Your task to perform on an android device: Clear all items from cart on costco.com. Search for "jbl flip 4" on costco.com, select the first entry, and add it to the cart. Image 0: 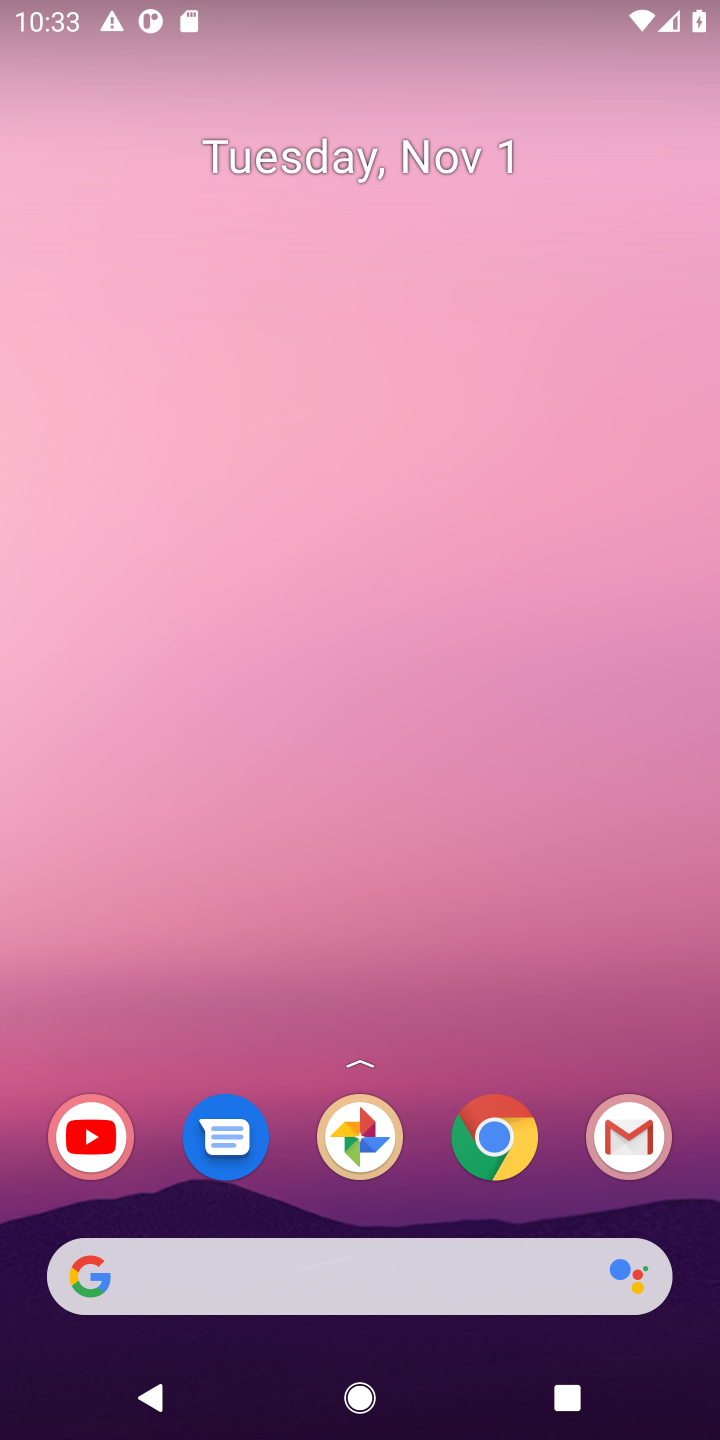
Step 0: press home button
Your task to perform on an android device: Clear all items from cart on costco.com. Search for "jbl flip 4" on costco.com, select the first entry, and add it to the cart. Image 1: 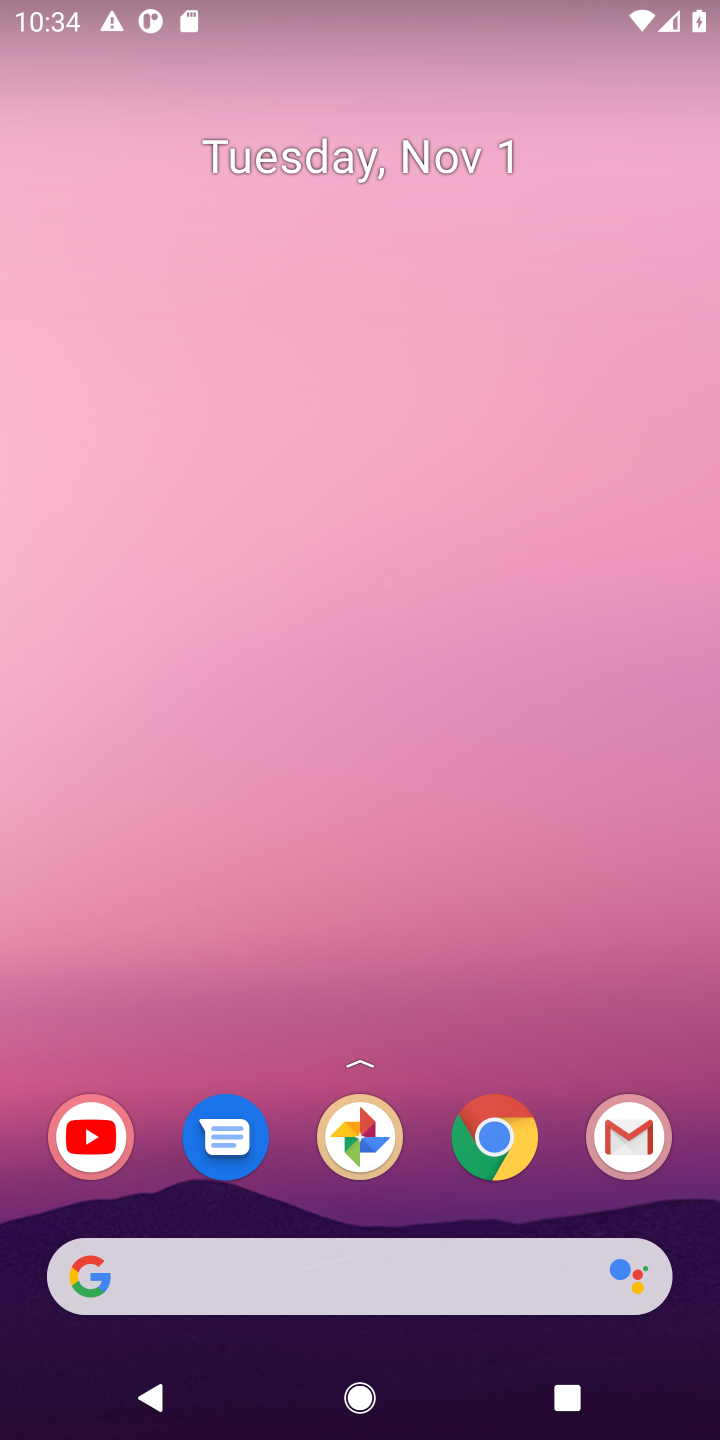
Step 1: click (315, 1287)
Your task to perform on an android device: Clear all items from cart on costco.com. Search for "jbl flip 4" on costco.com, select the first entry, and add it to the cart. Image 2: 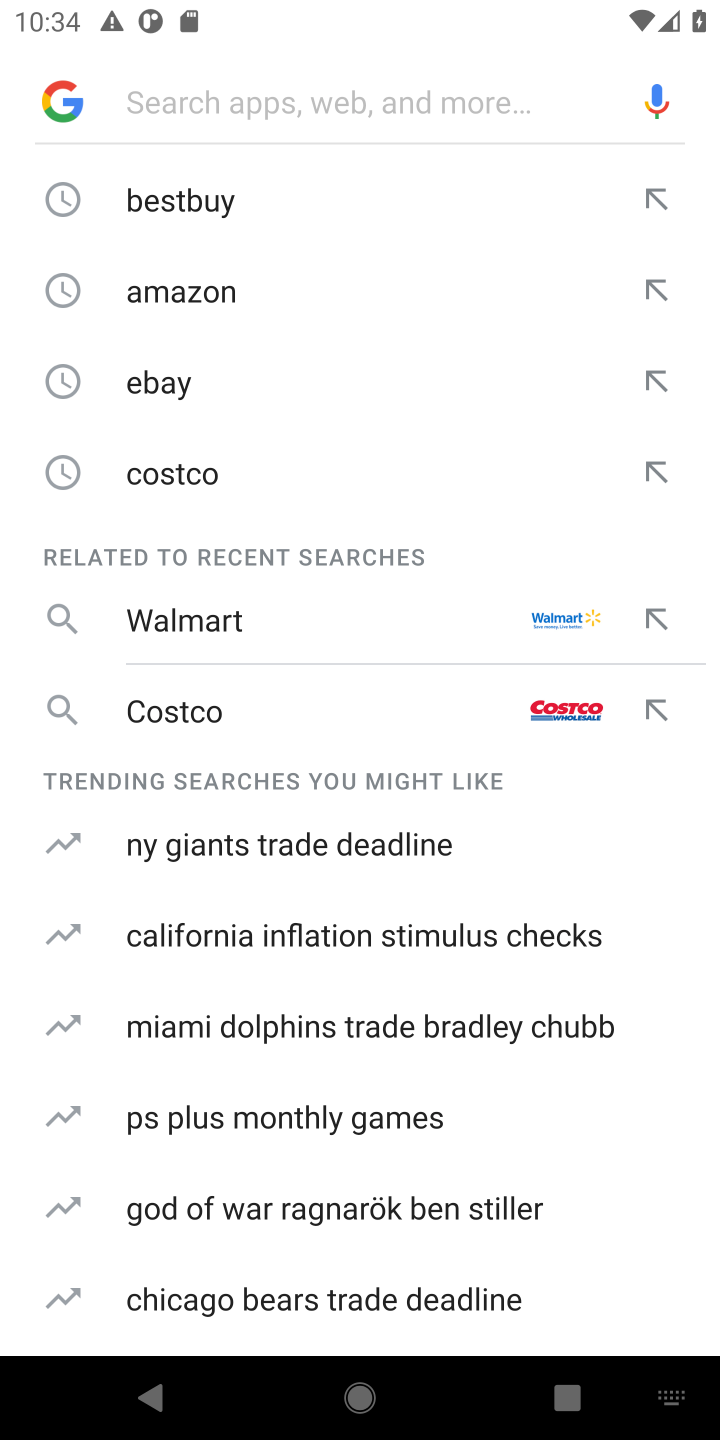
Step 2: click (394, 715)
Your task to perform on an android device: Clear all items from cart on costco.com. Search for "jbl flip 4" on costco.com, select the first entry, and add it to the cart. Image 3: 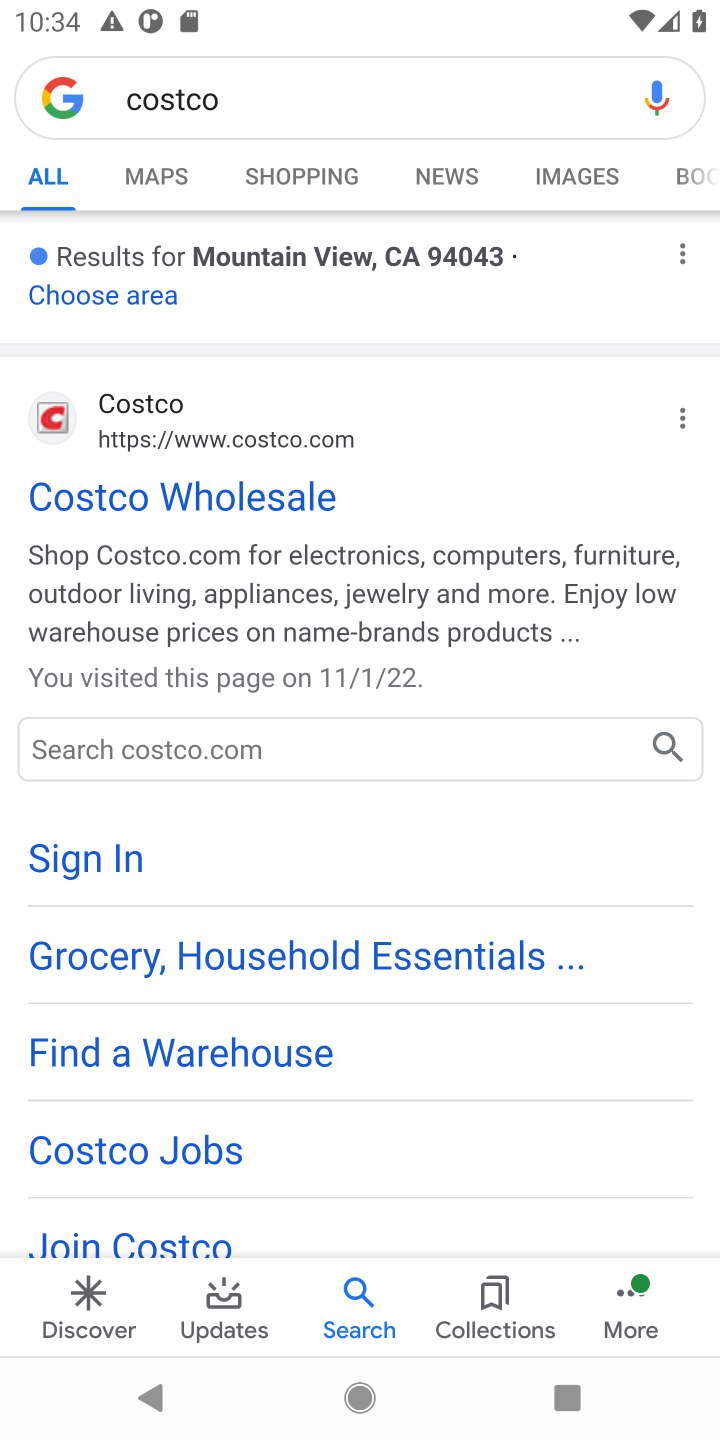
Step 3: click (210, 500)
Your task to perform on an android device: Clear all items from cart on costco.com. Search for "jbl flip 4" on costco.com, select the first entry, and add it to the cart. Image 4: 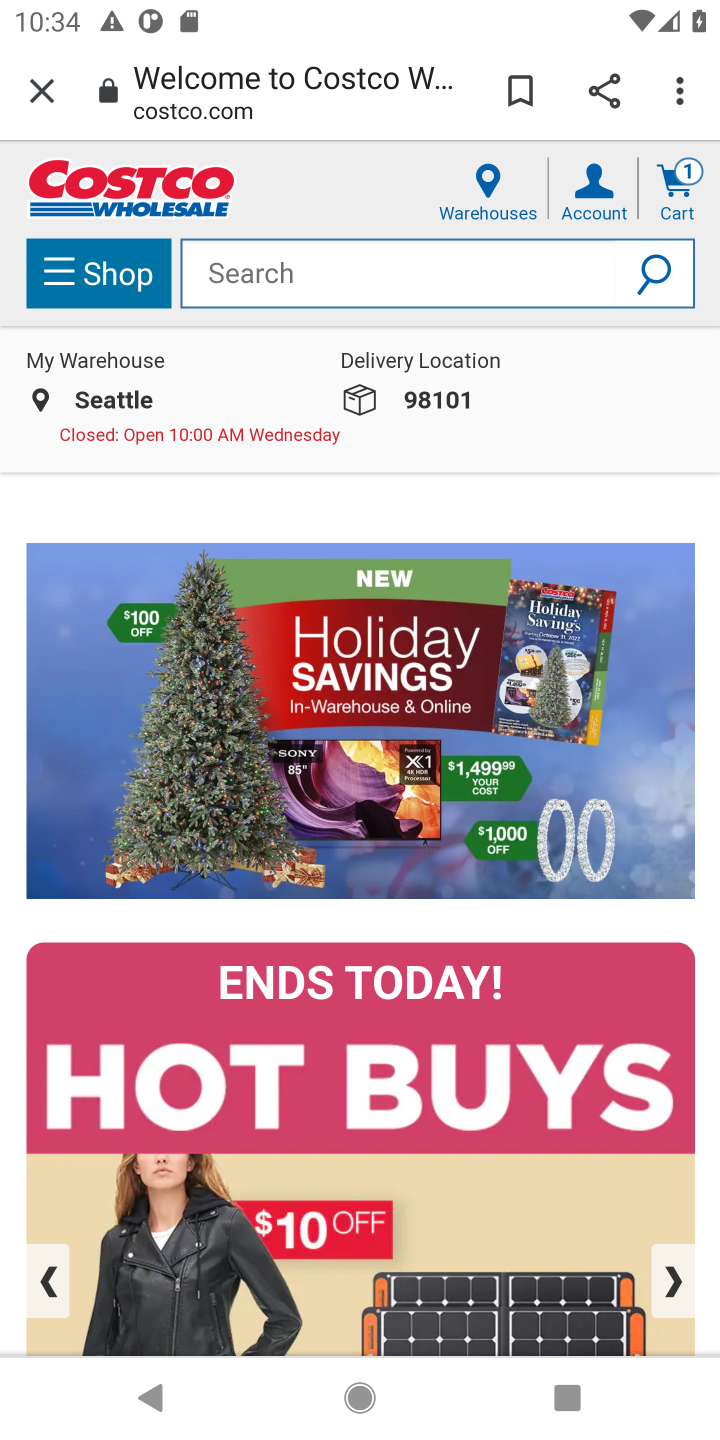
Step 4: click (520, 279)
Your task to perform on an android device: Clear all items from cart on costco.com. Search for "jbl flip 4" on costco.com, select the first entry, and add it to the cart. Image 5: 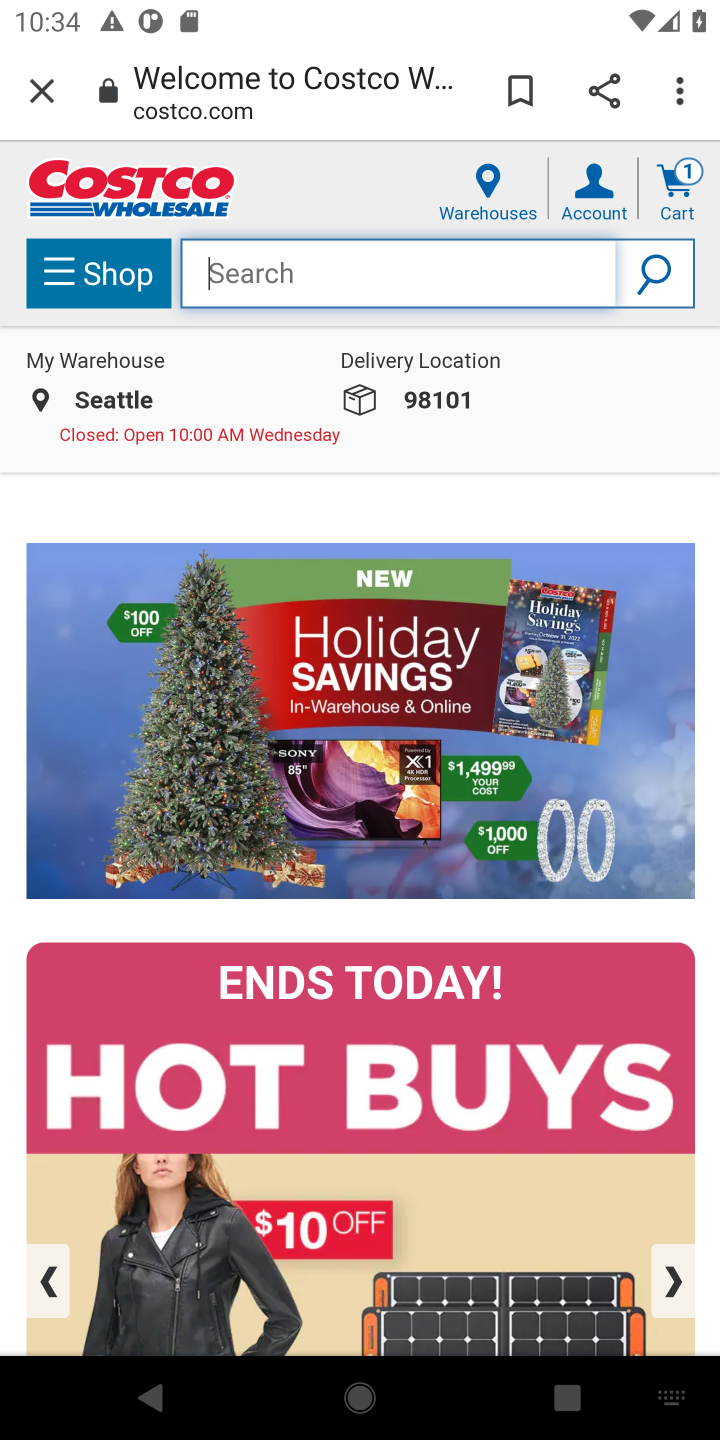
Step 5: type ""jbl flip 4"
Your task to perform on an android device: Clear all items from cart on costco.com. Search for "jbl flip 4" on costco.com, select the first entry, and add it to the cart. Image 6: 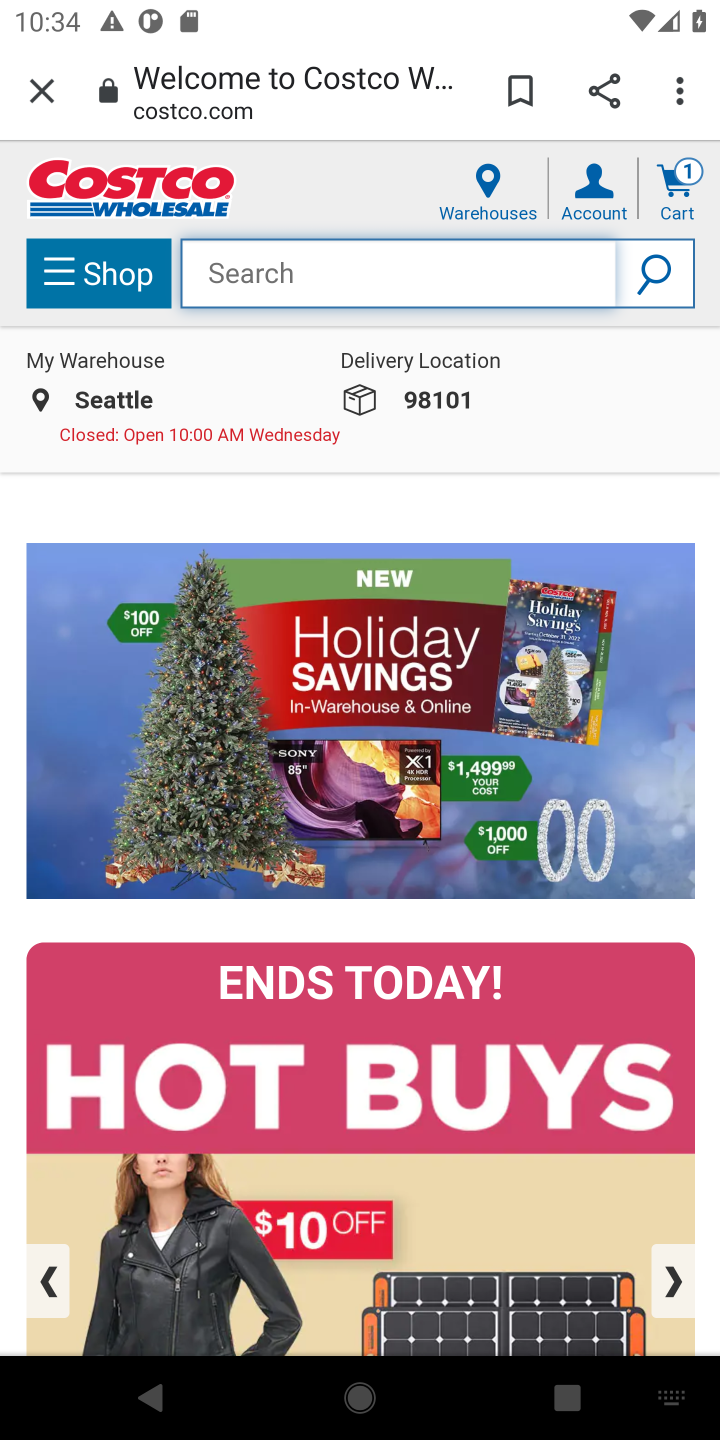
Step 6: click (662, 188)
Your task to perform on an android device: Clear all items from cart on costco.com. Search for "jbl flip 4" on costco.com, select the first entry, and add it to the cart. Image 7: 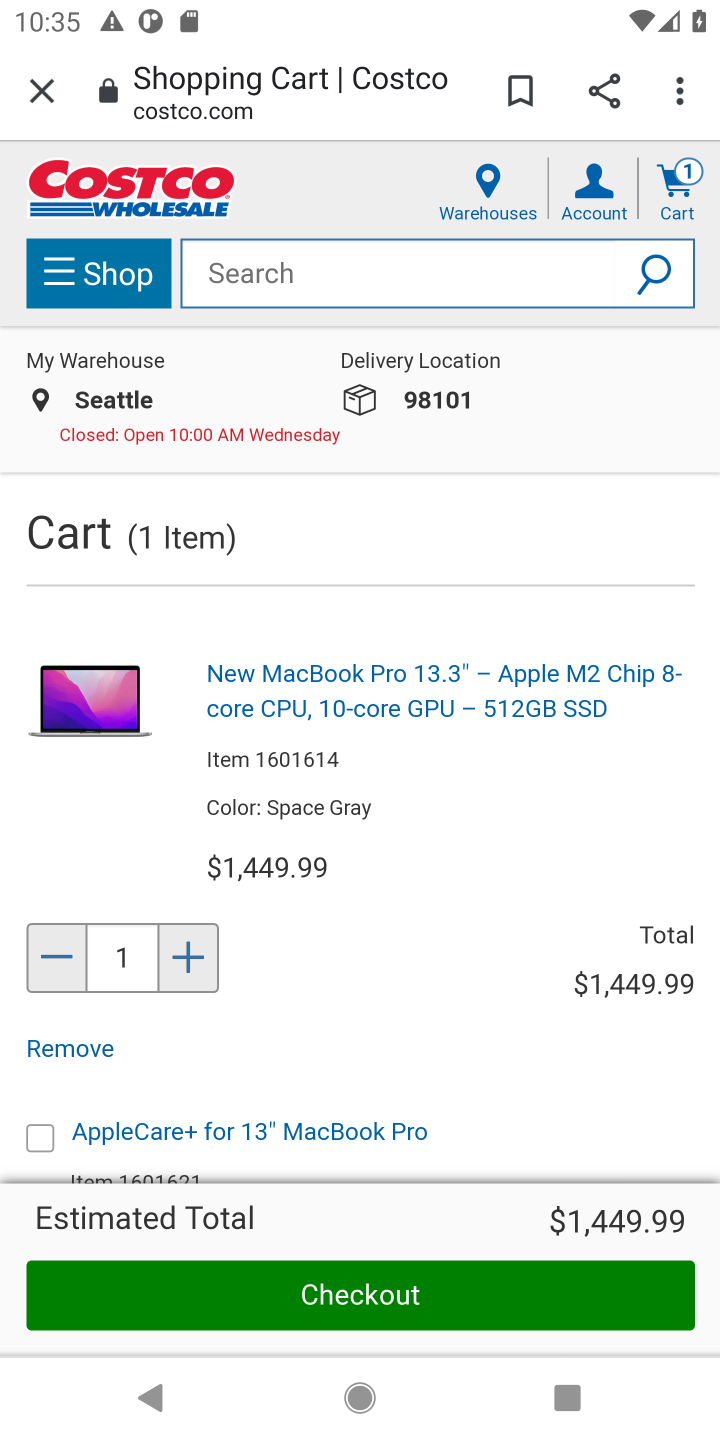
Step 7: click (68, 1039)
Your task to perform on an android device: Clear all items from cart on costco.com. Search for "jbl flip 4" on costco.com, select the first entry, and add it to the cart. Image 8: 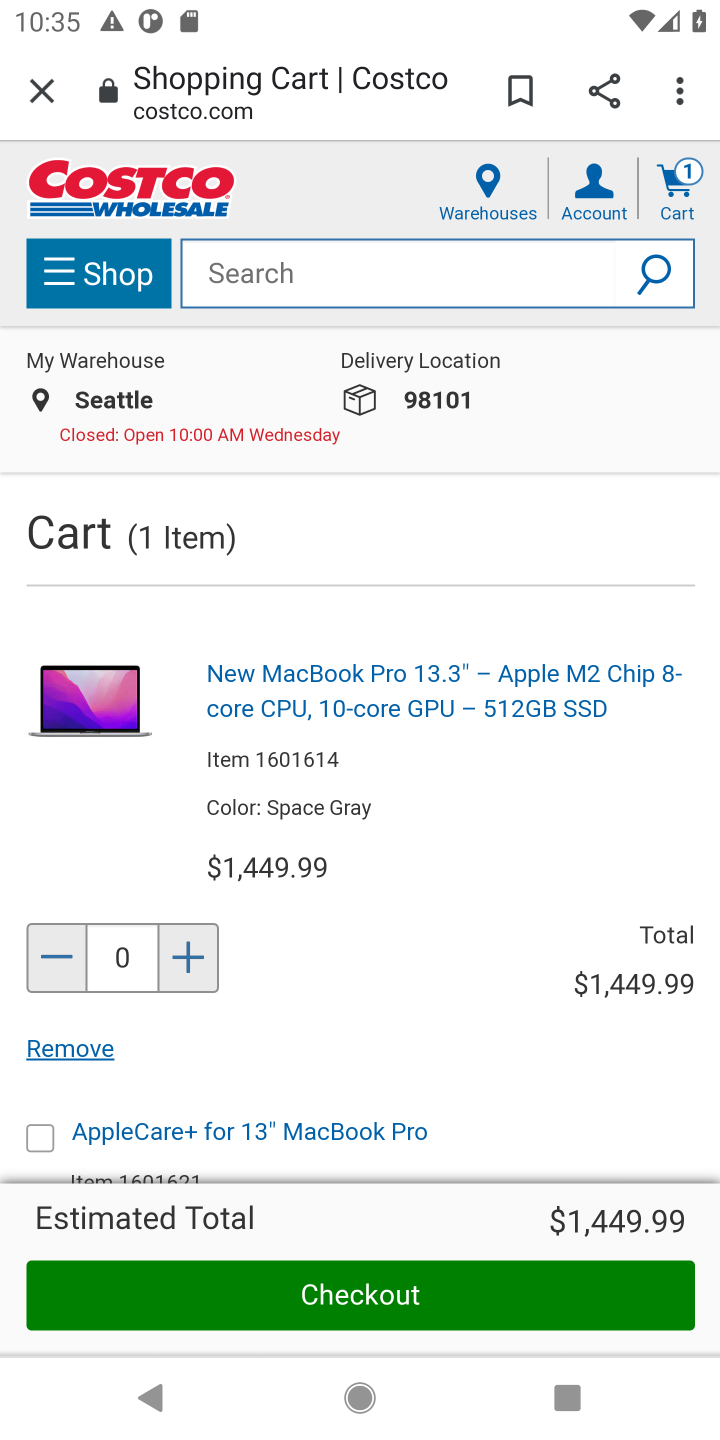
Step 8: click (36, 1051)
Your task to perform on an android device: Clear all items from cart on costco.com. Search for "jbl flip 4" on costco.com, select the first entry, and add it to the cart. Image 9: 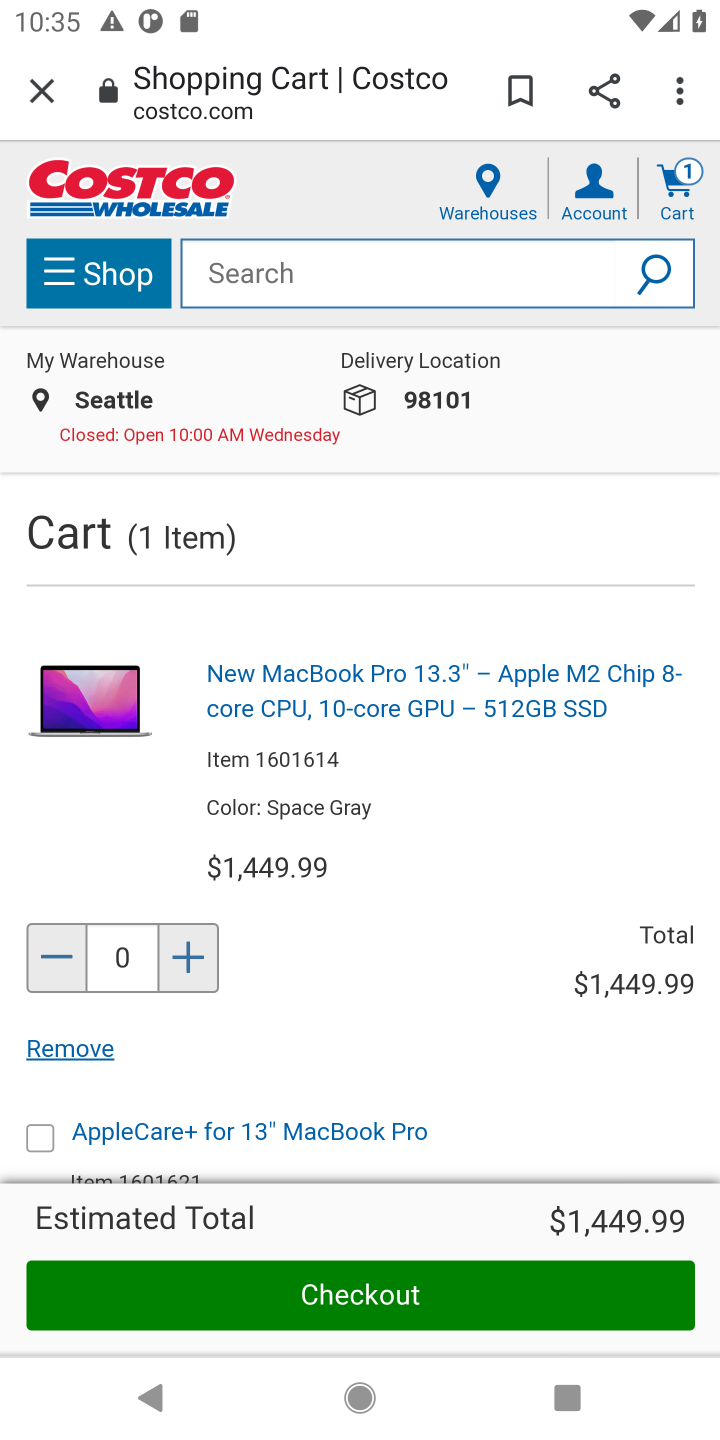
Step 9: click (48, 1054)
Your task to perform on an android device: Clear all items from cart on costco.com. Search for "jbl flip 4" on costco.com, select the first entry, and add it to the cart. Image 10: 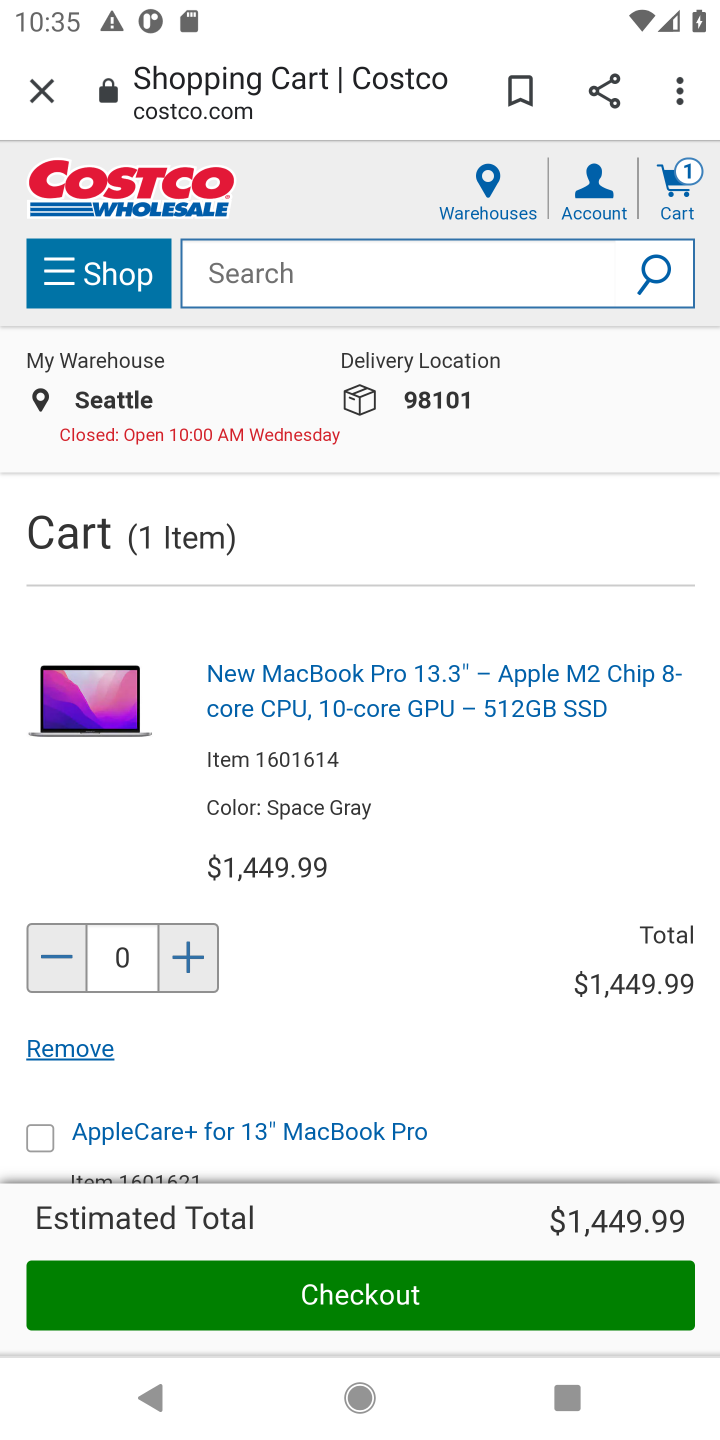
Step 10: click (48, 1054)
Your task to perform on an android device: Clear all items from cart on costco.com. Search for "jbl flip 4" on costco.com, select the first entry, and add it to the cart. Image 11: 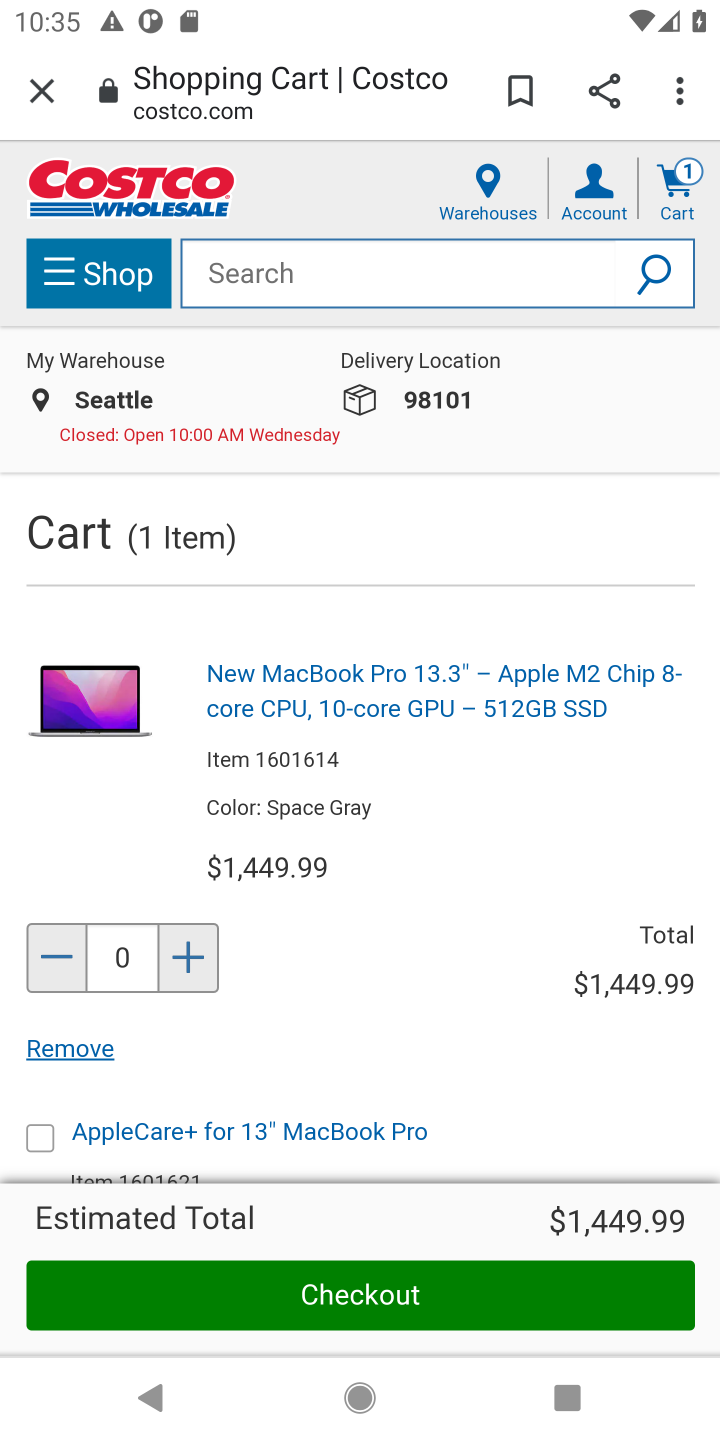
Step 11: click (76, 1054)
Your task to perform on an android device: Clear all items from cart on costco.com. Search for "jbl flip 4" on costco.com, select the first entry, and add it to the cart. Image 12: 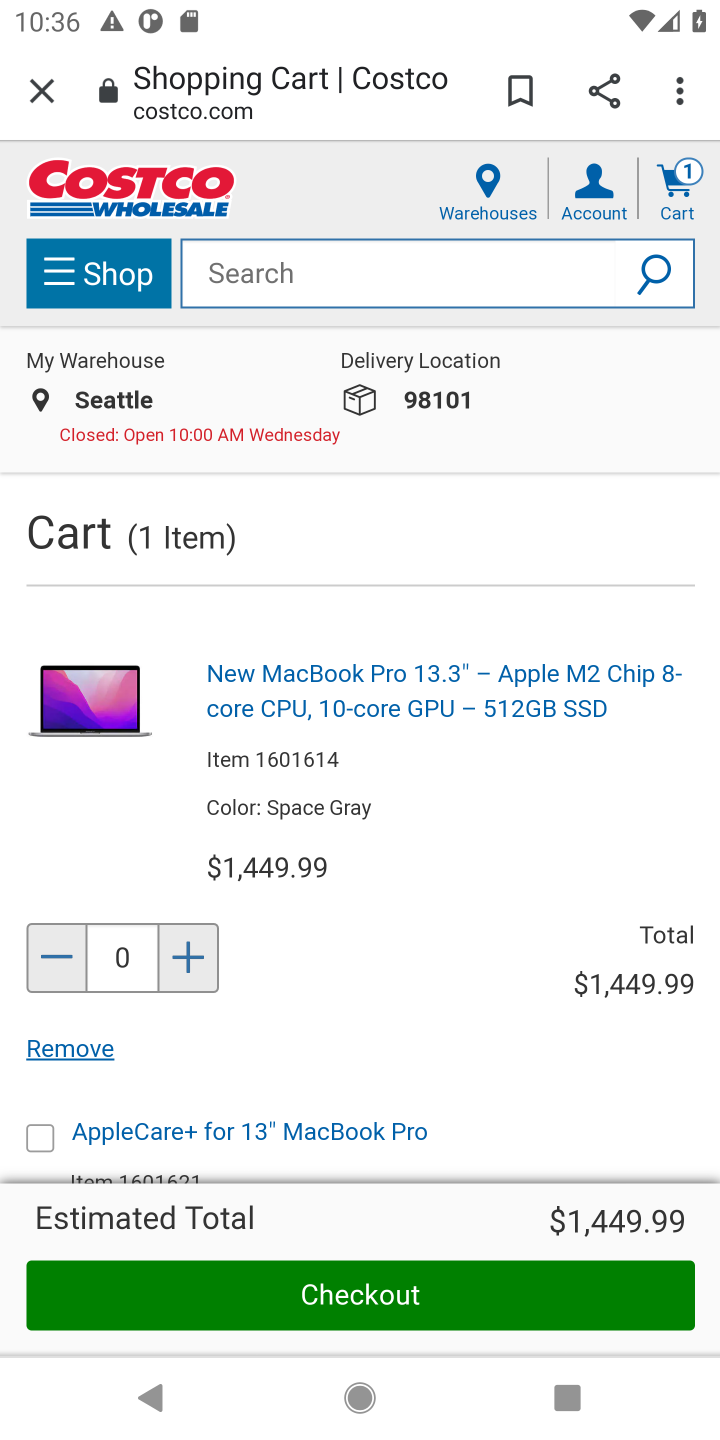
Step 12: click (269, 269)
Your task to perform on an android device: Clear all items from cart on costco.com. Search for "jbl flip 4" on costco.com, select the first entry, and add it to the cart. Image 13: 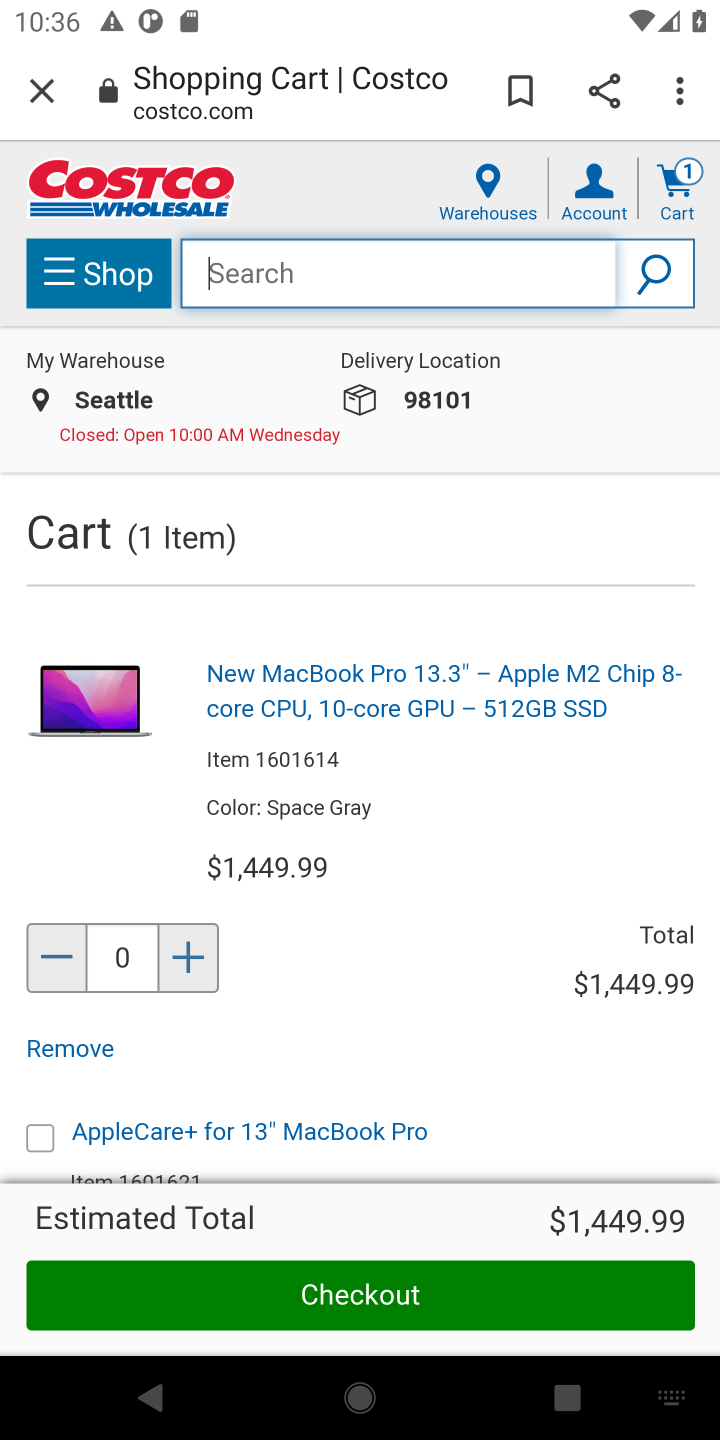
Step 13: type ""jbl flip 4"
Your task to perform on an android device: Clear all items from cart on costco.com. Search for "jbl flip 4" on costco.com, select the first entry, and add it to the cart. Image 14: 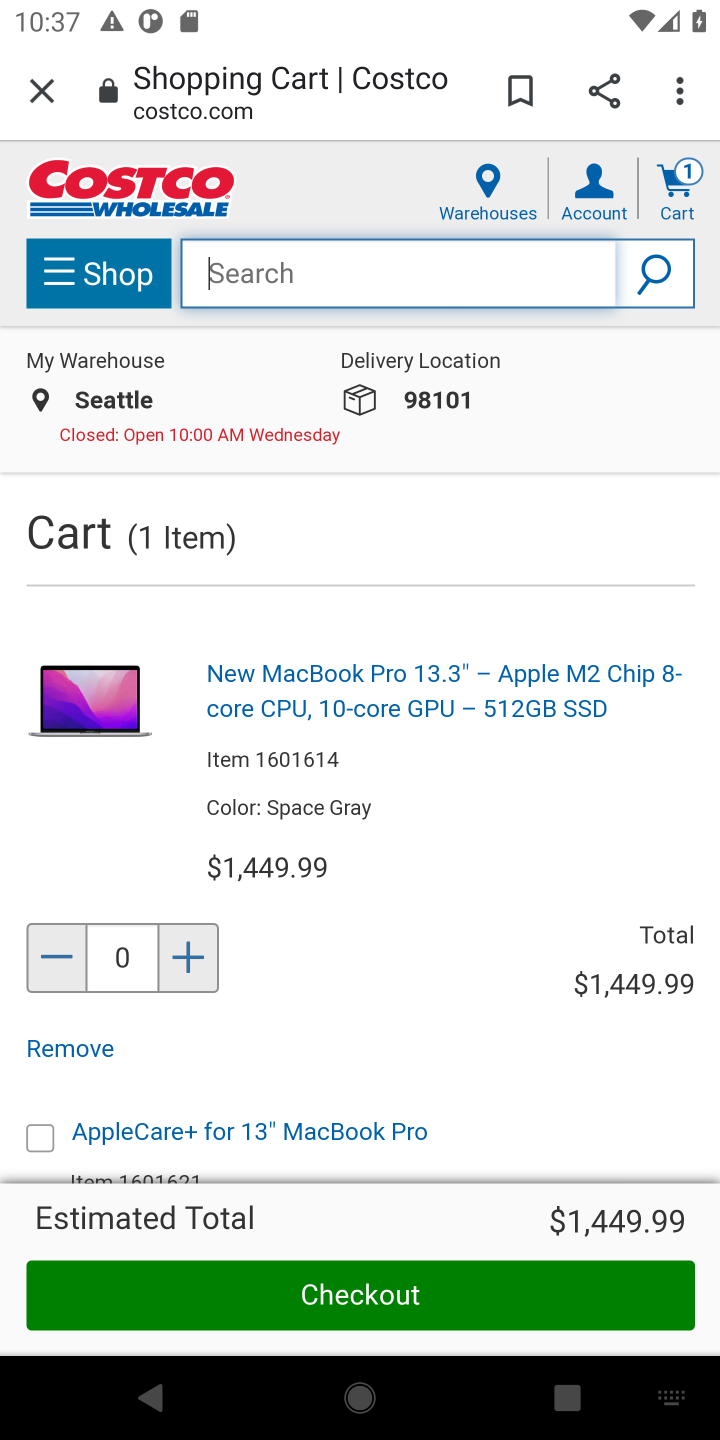
Step 14: click (63, 1038)
Your task to perform on an android device: Clear all items from cart on costco.com. Search for "jbl flip 4" on costco.com, select the first entry, and add it to the cart. Image 15: 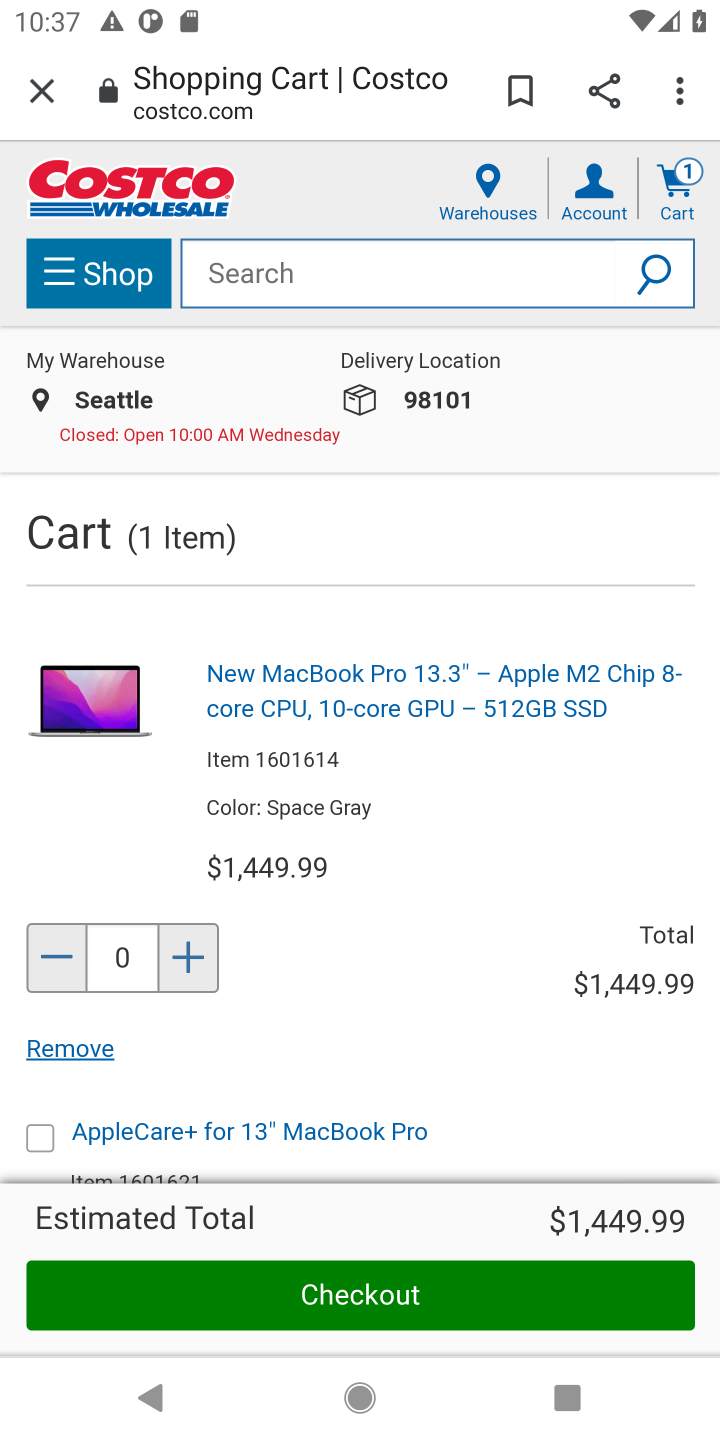
Step 15: click (63, 1050)
Your task to perform on an android device: Clear all items from cart on costco.com. Search for "jbl flip 4" on costco.com, select the first entry, and add it to the cart. Image 16: 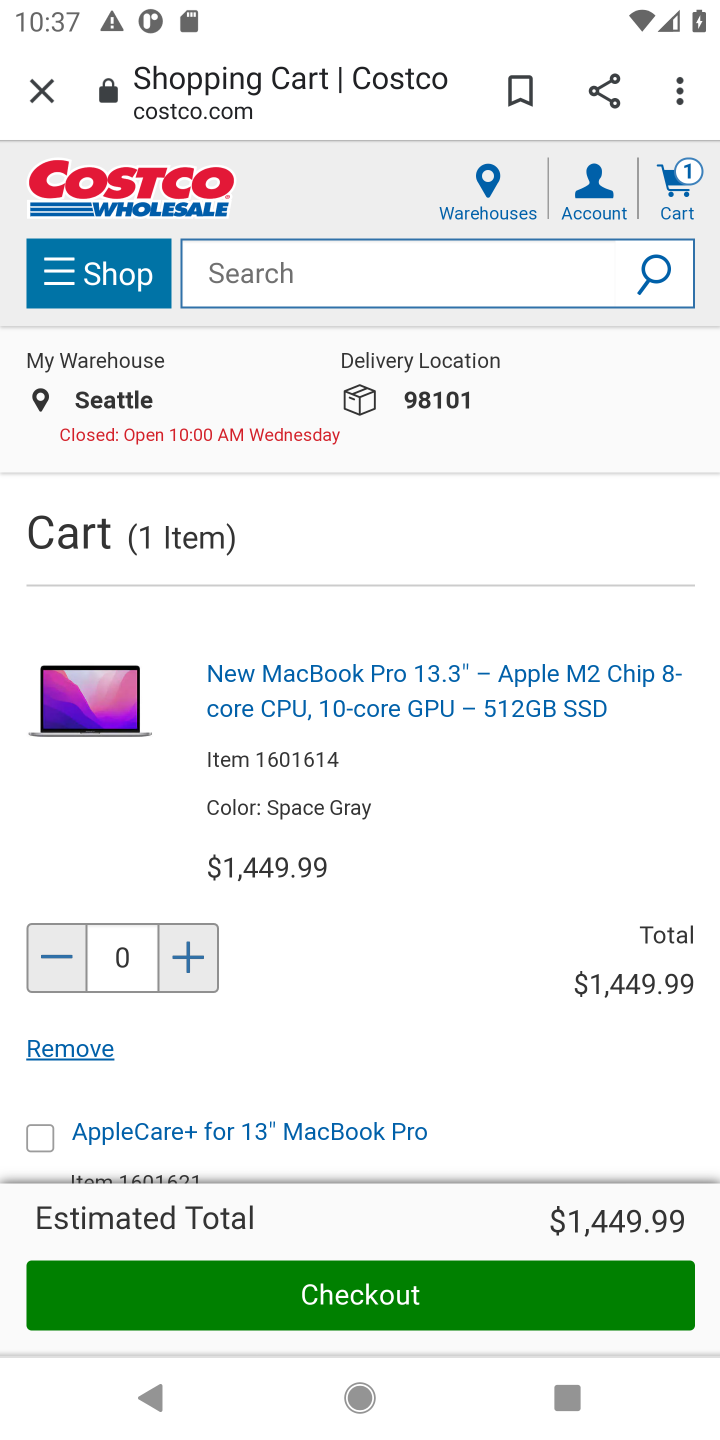
Step 16: click (63, 1050)
Your task to perform on an android device: Clear all items from cart on costco.com. Search for "jbl flip 4" on costco.com, select the first entry, and add it to the cart. Image 17: 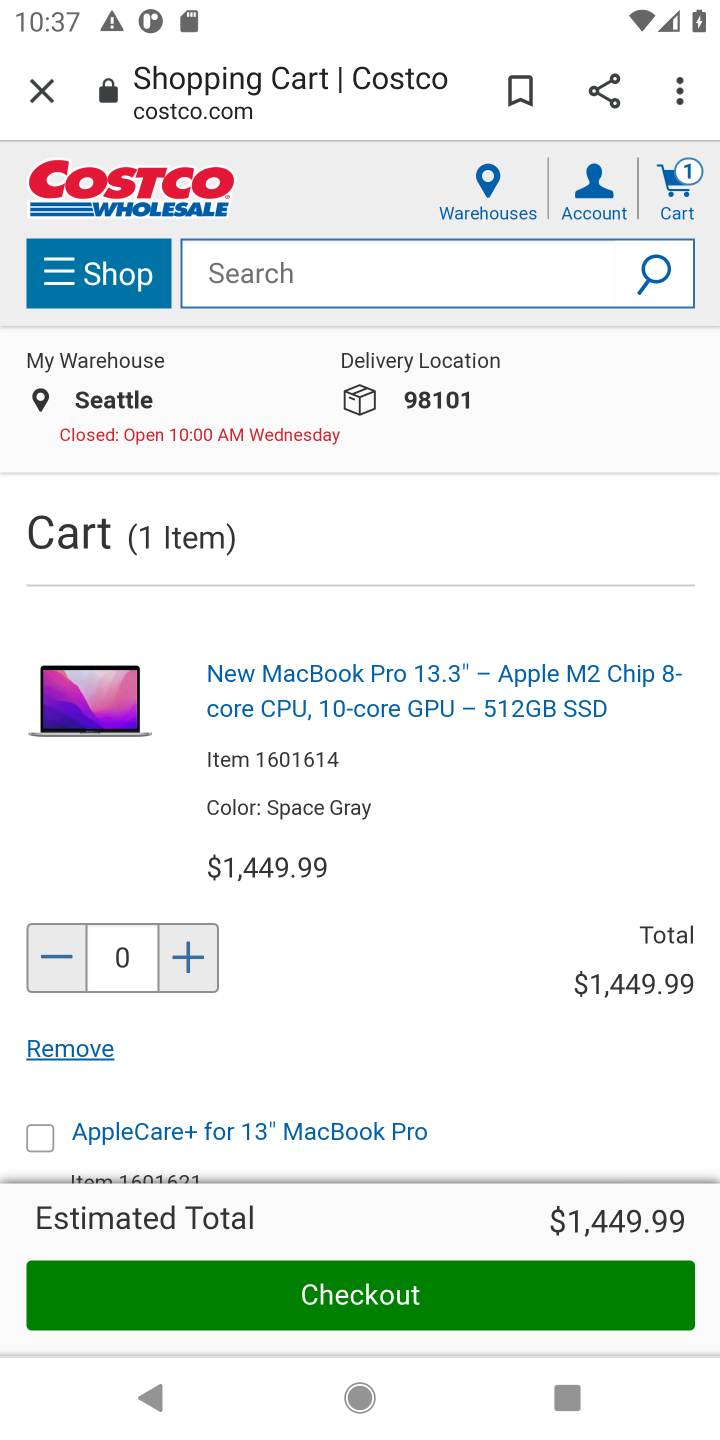
Step 17: click (63, 1039)
Your task to perform on an android device: Clear all items from cart on costco.com. Search for "jbl flip 4" on costco.com, select the first entry, and add it to the cart. Image 18: 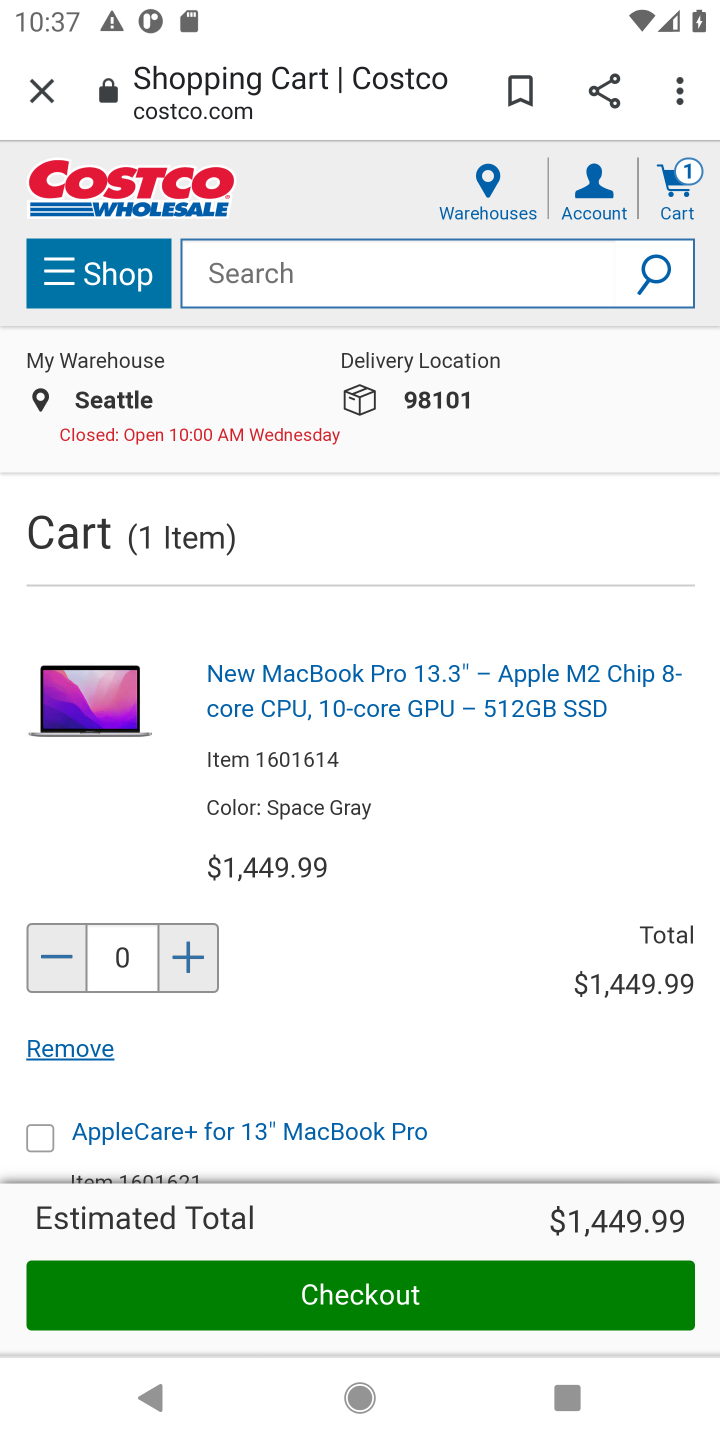
Step 18: click (63, 1039)
Your task to perform on an android device: Clear all items from cart on costco.com. Search for "jbl flip 4" on costco.com, select the first entry, and add it to the cart. Image 19: 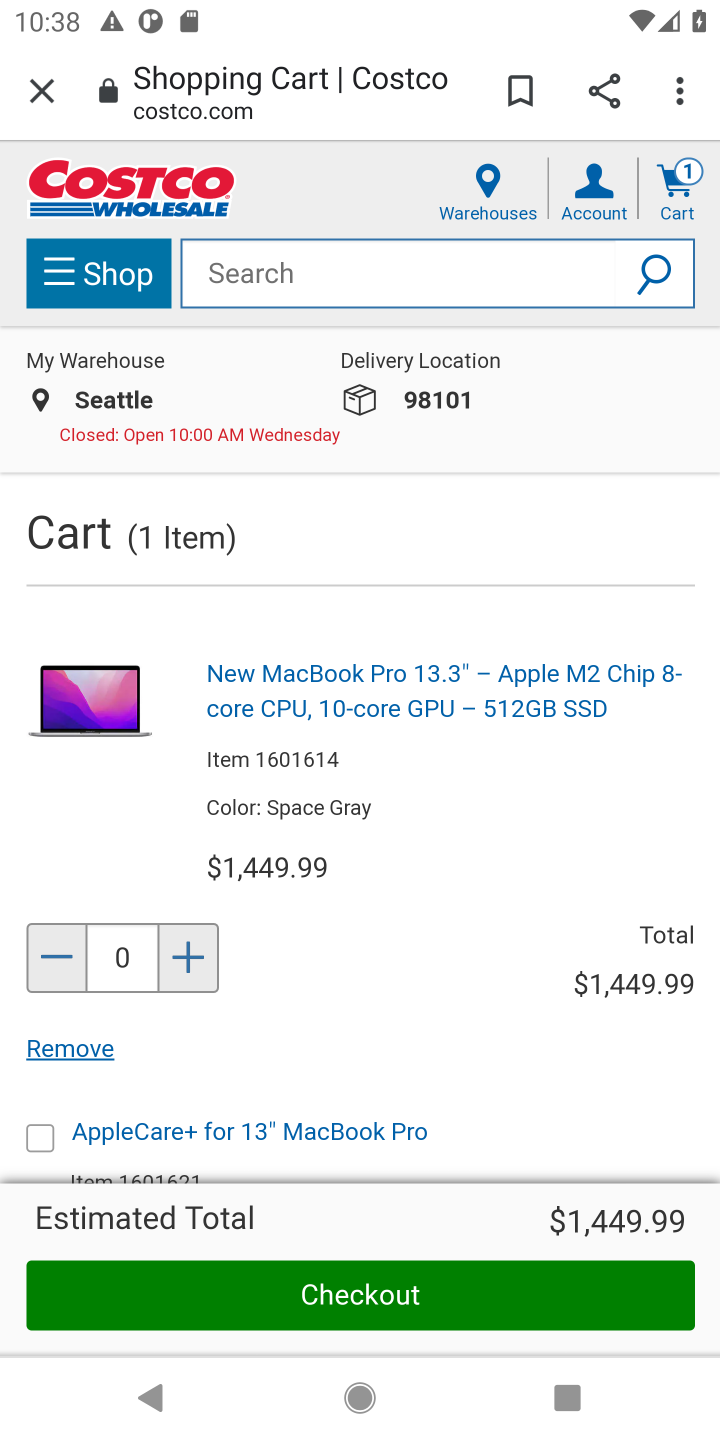
Step 19: click (63, 1039)
Your task to perform on an android device: Clear all items from cart on costco.com. Search for "jbl flip 4" on costco.com, select the first entry, and add it to the cart. Image 20: 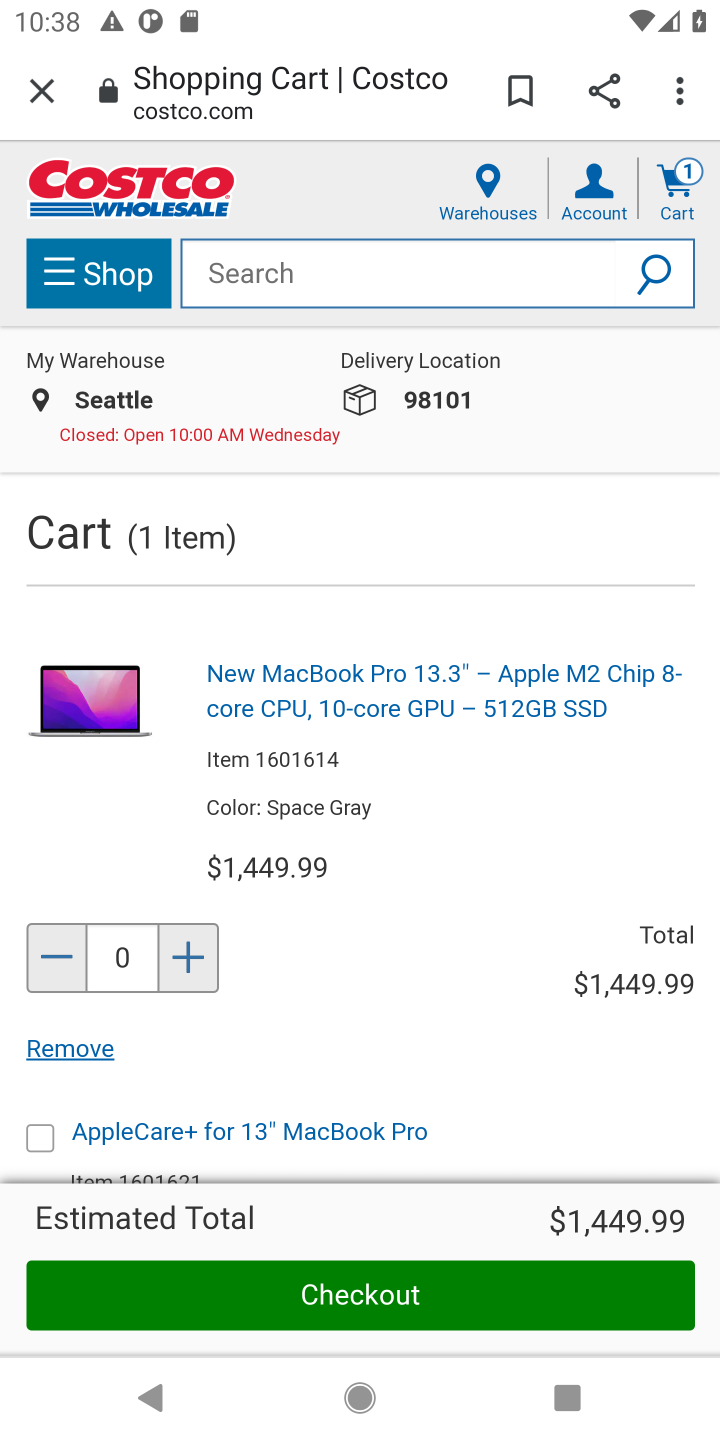
Step 20: click (72, 1045)
Your task to perform on an android device: Clear all items from cart on costco.com. Search for "jbl flip 4" on costco.com, select the first entry, and add it to the cart. Image 21: 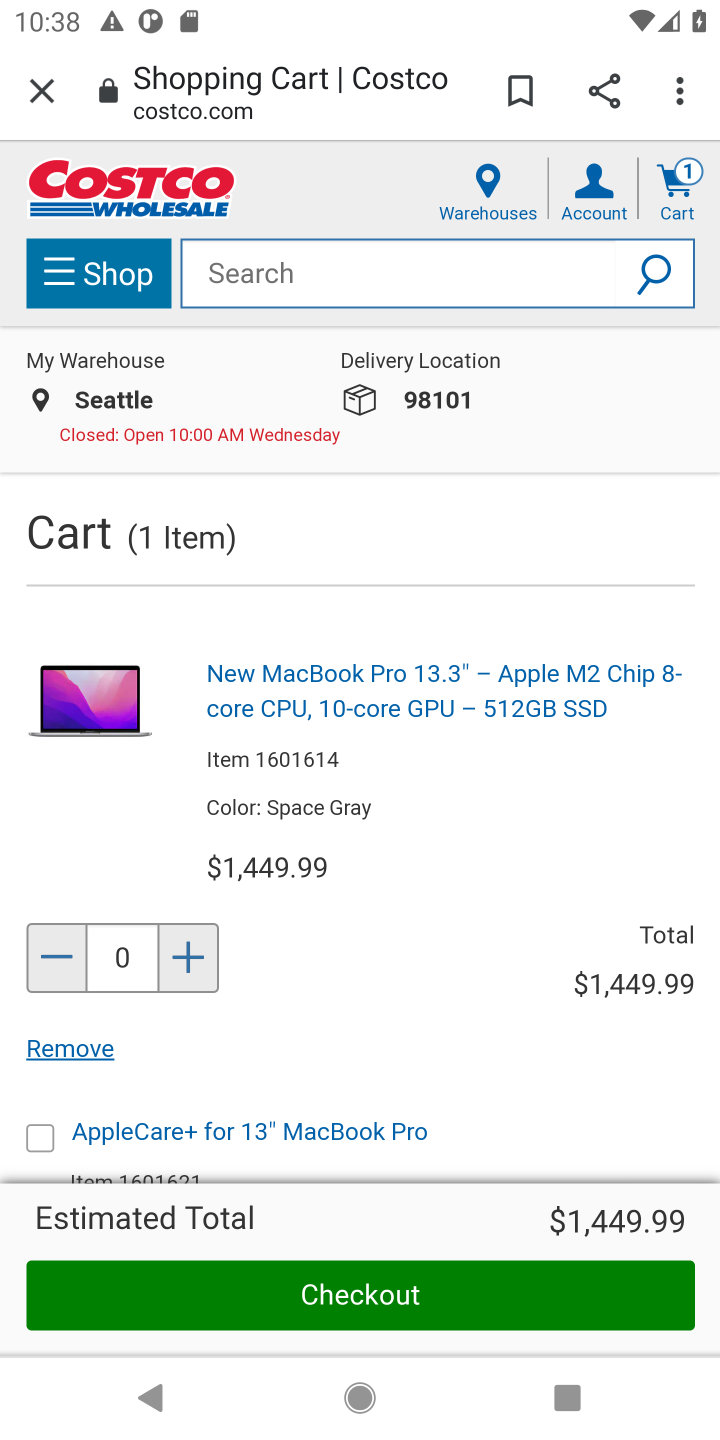
Step 21: click (97, 1032)
Your task to perform on an android device: Clear all items from cart on costco.com. Search for "jbl flip 4" on costco.com, select the first entry, and add it to the cart. Image 22: 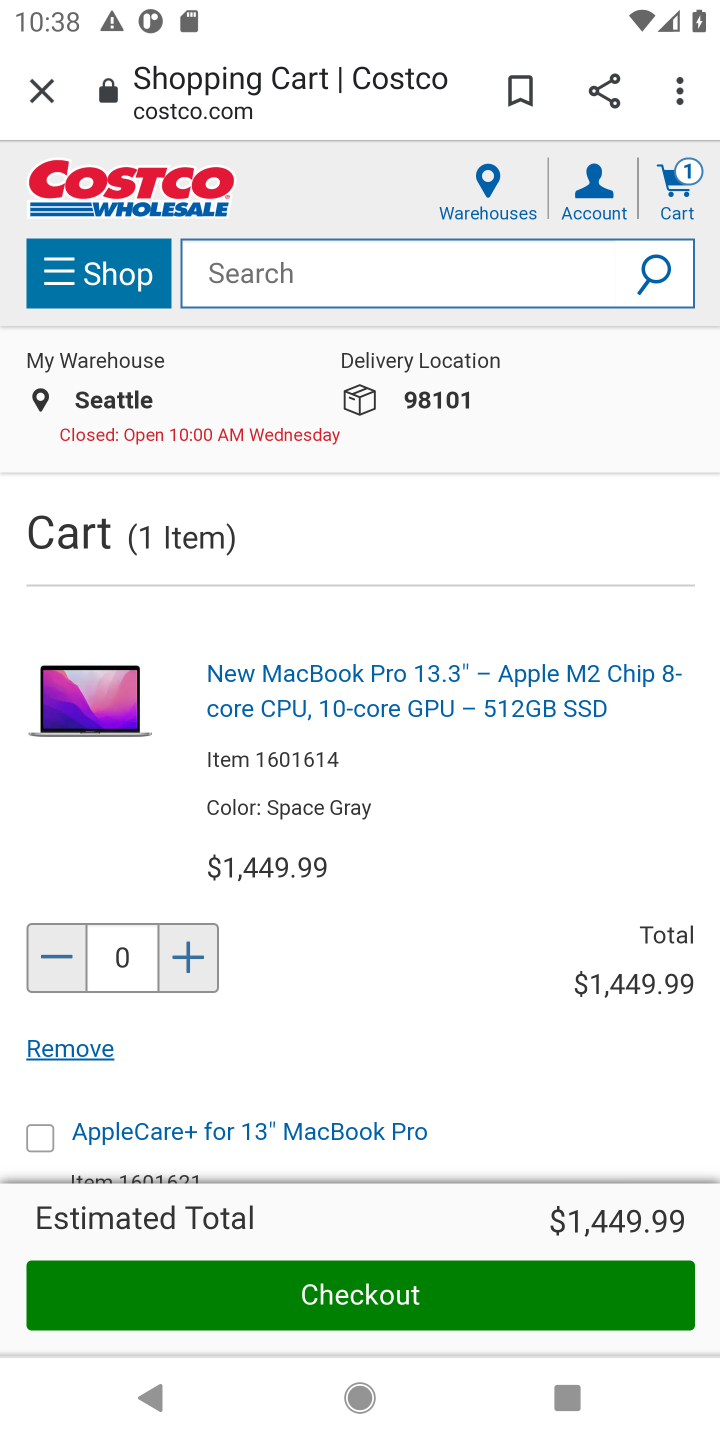
Step 22: drag from (365, 917) to (386, 570)
Your task to perform on an android device: Clear all items from cart on costco.com. Search for "jbl flip 4" on costco.com, select the first entry, and add it to the cart. Image 23: 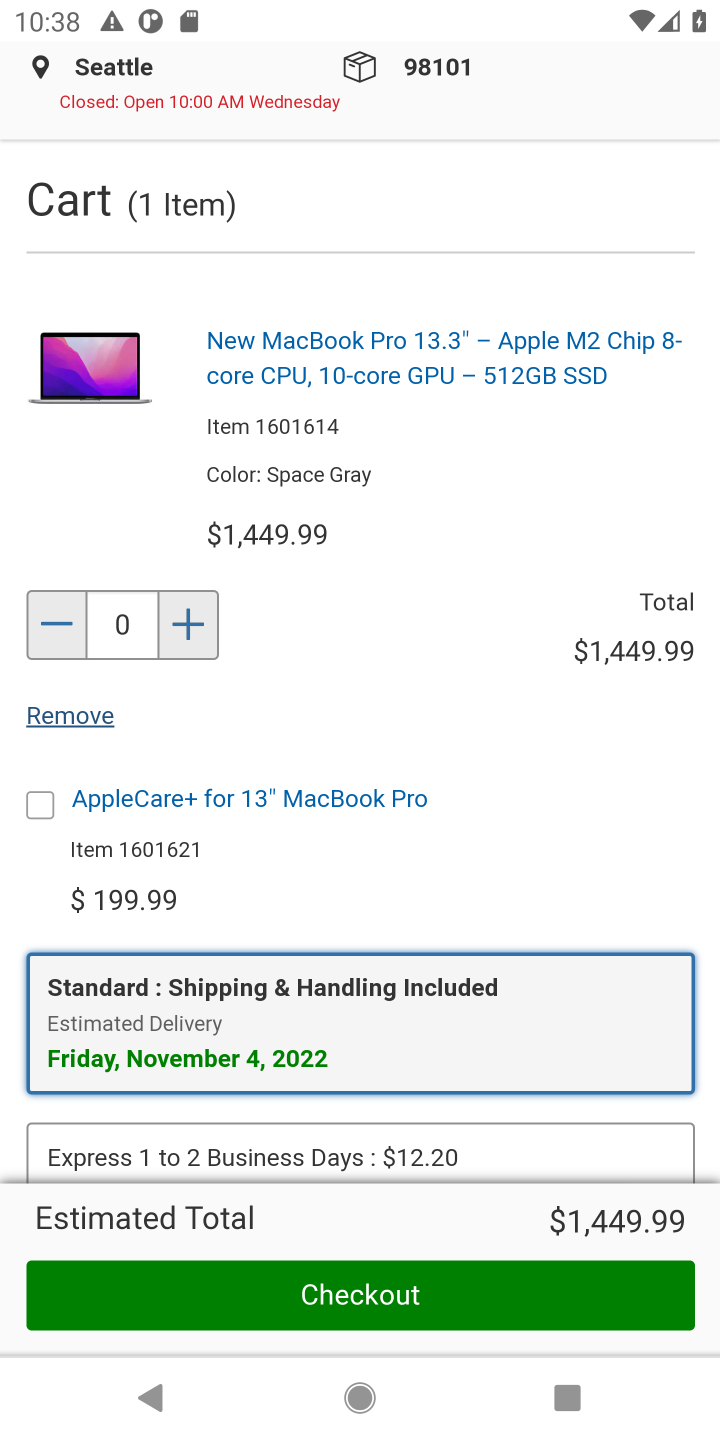
Step 23: click (60, 723)
Your task to perform on an android device: Clear all items from cart on costco.com. Search for "jbl flip 4" on costco.com, select the first entry, and add it to the cart. Image 24: 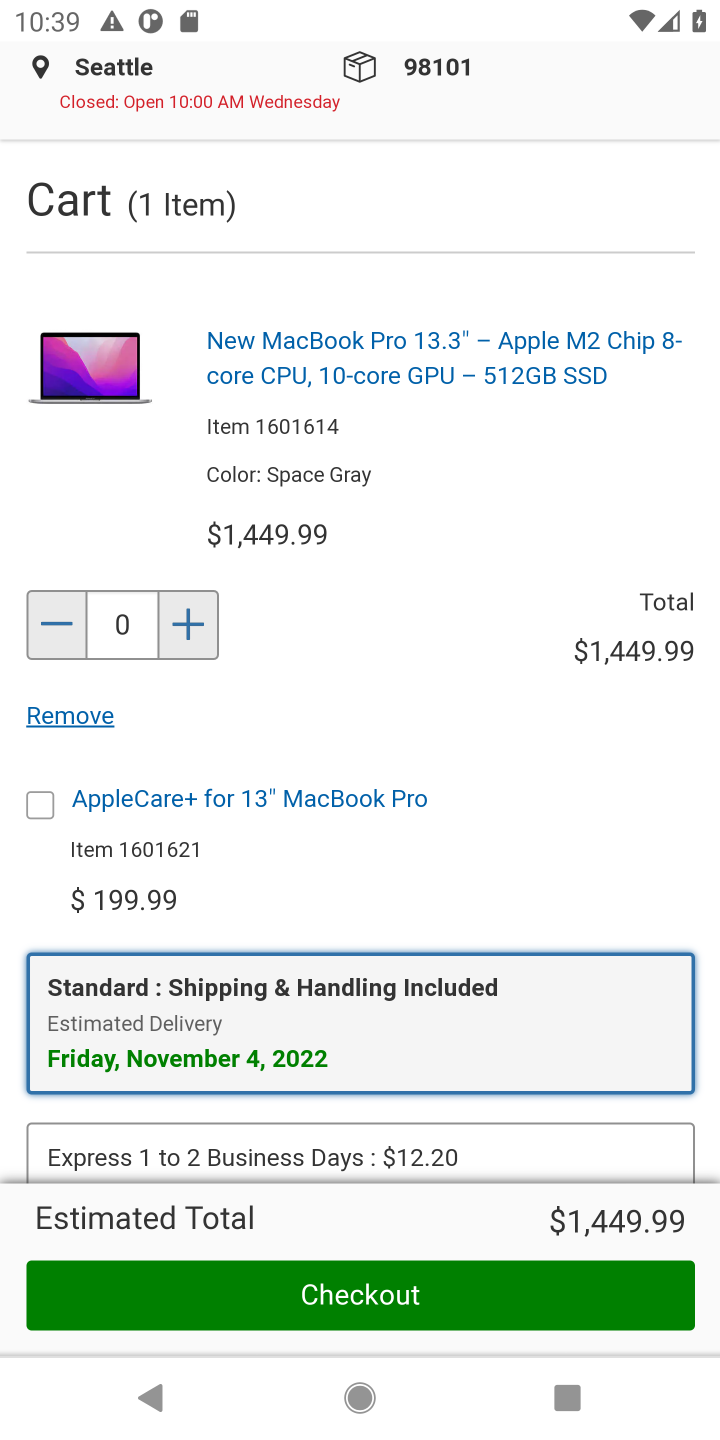
Step 24: click (63, 705)
Your task to perform on an android device: Clear all items from cart on costco.com. Search for "jbl flip 4" on costco.com, select the first entry, and add it to the cart. Image 25: 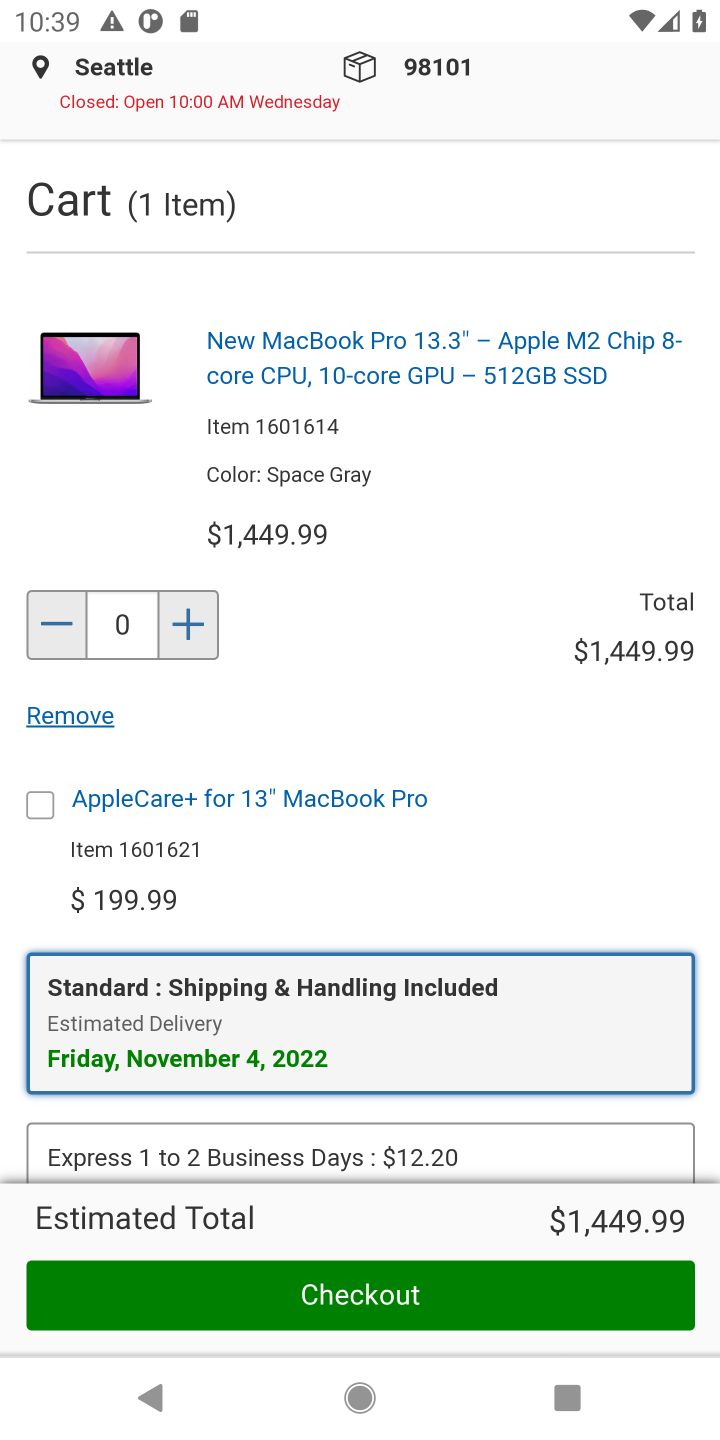
Step 25: click (86, 726)
Your task to perform on an android device: Clear all items from cart on costco.com. Search for "jbl flip 4" on costco.com, select the first entry, and add it to the cart. Image 26: 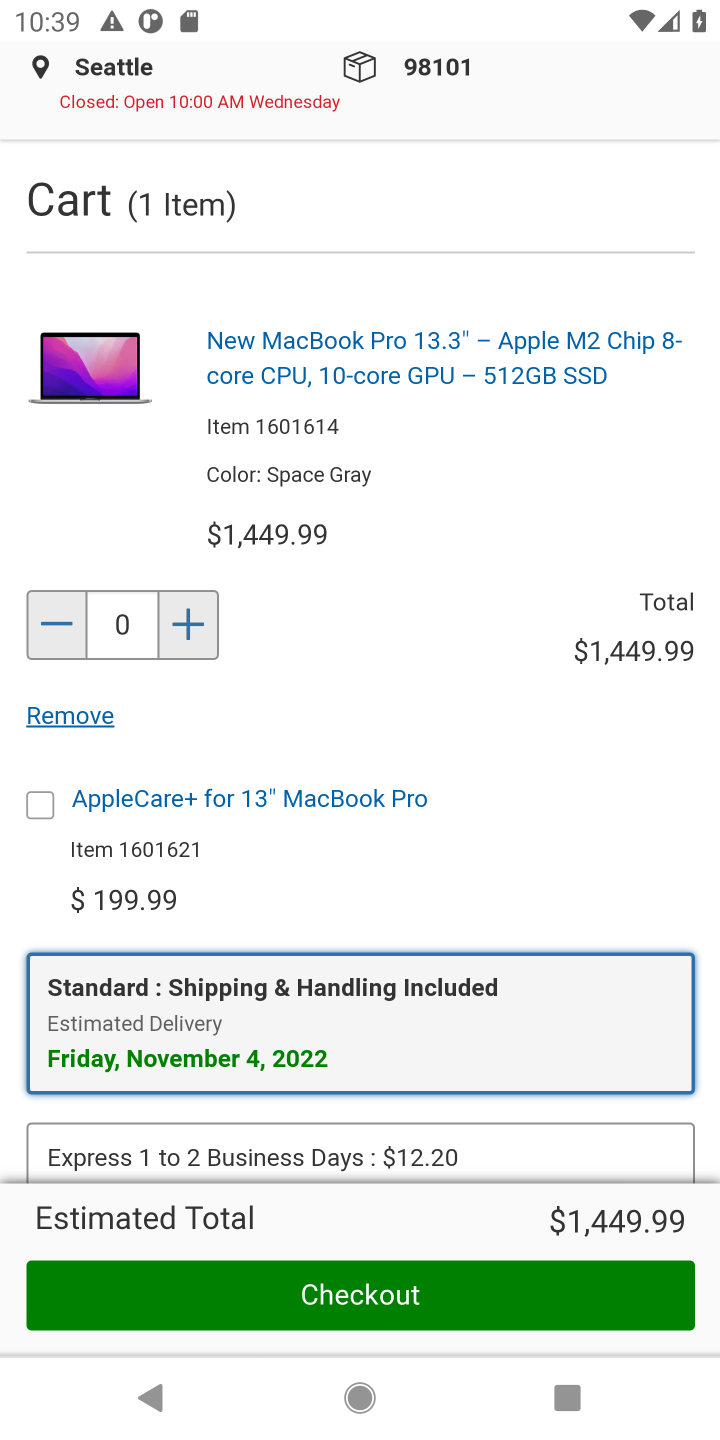
Step 26: drag from (691, 653) to (691, 930)
Your task to perform on an android device: Clear all items from cart on costco.com. Search for "jbl flip 4" on costco.com, select the first entry, and add it to the cart. Image 27: 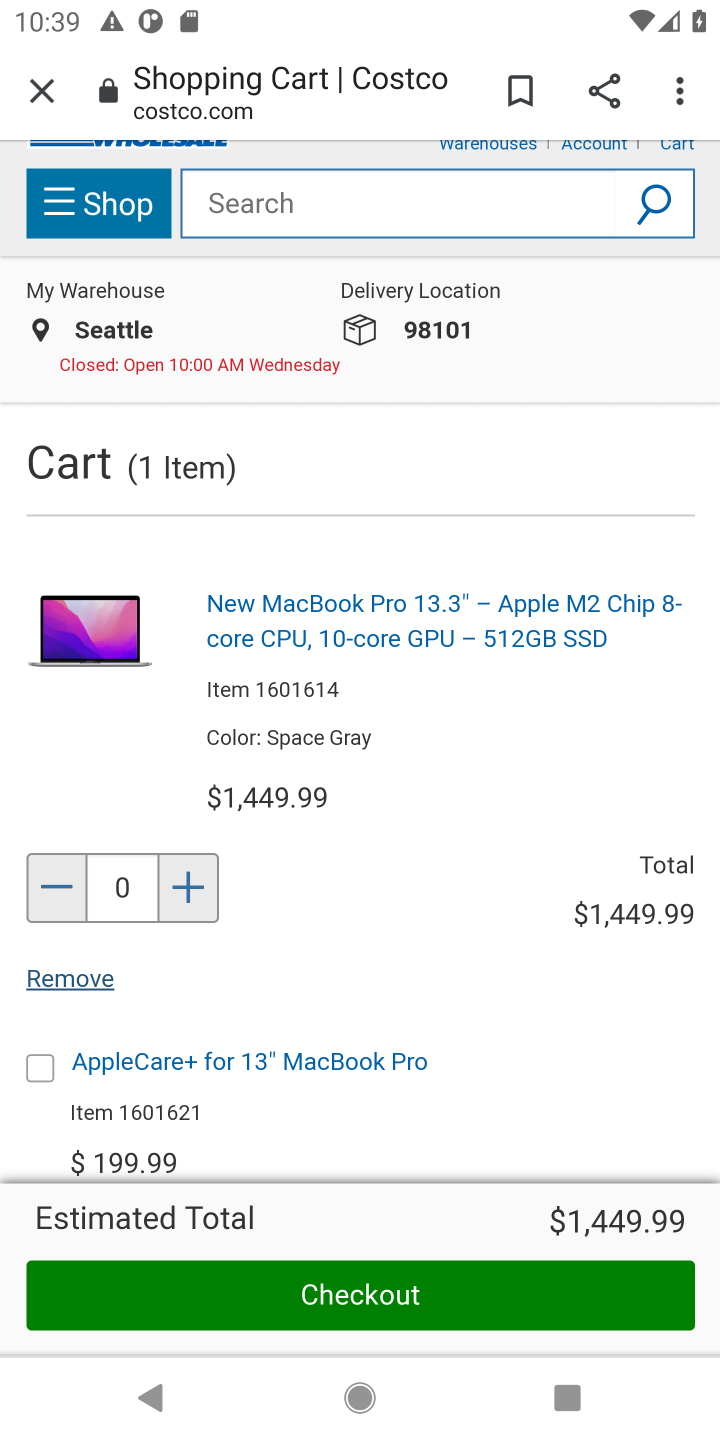
Step 27: click (415, 192)
Your task to perform on an android device: Clear all items from cart on costco.com. Search for "jbl flip 4" on costco.com, select the first entry, and add it to the cart. Image 28: 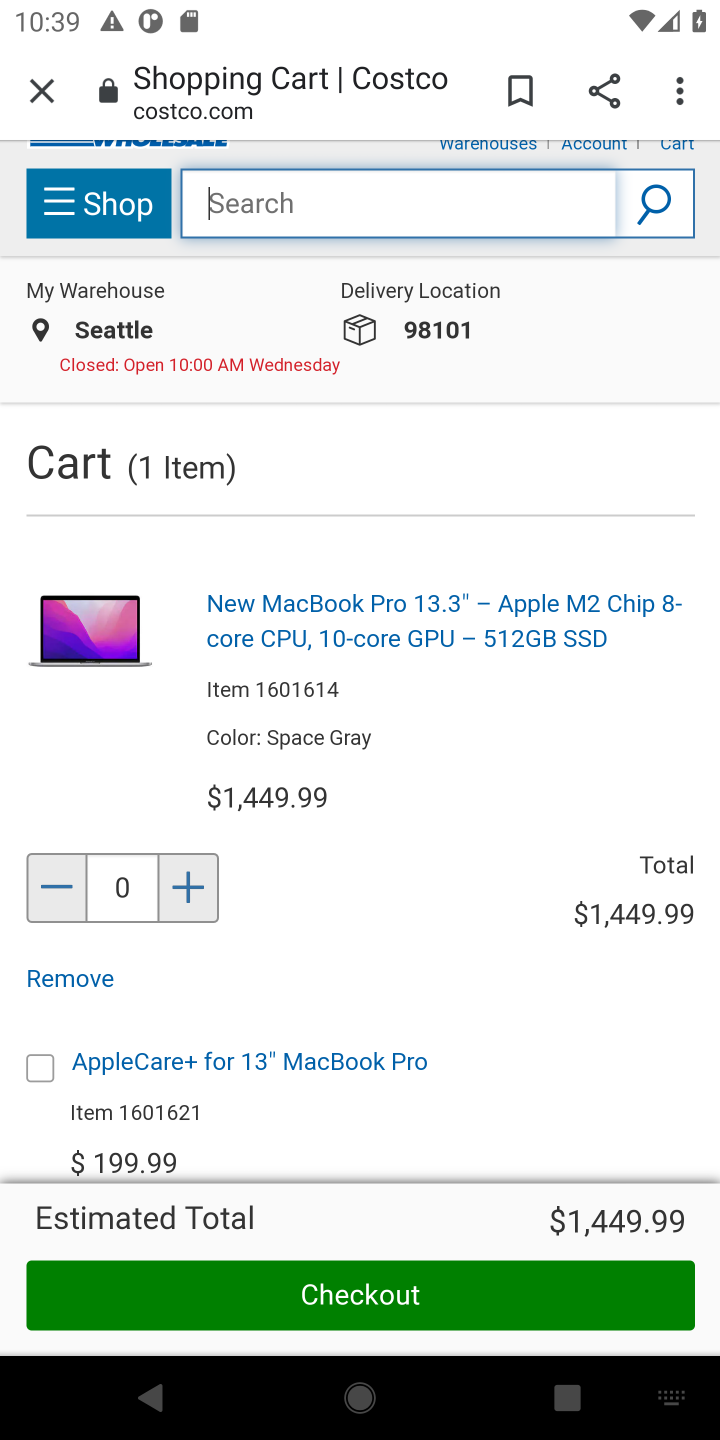
Step 28: type "jbl flip 4" "
Your task to perform on an android device: Clear all items from cart on costco.com. Search for "jbl flip 4" on costco.com, select the first entry, and add it to the cart. Image 29: 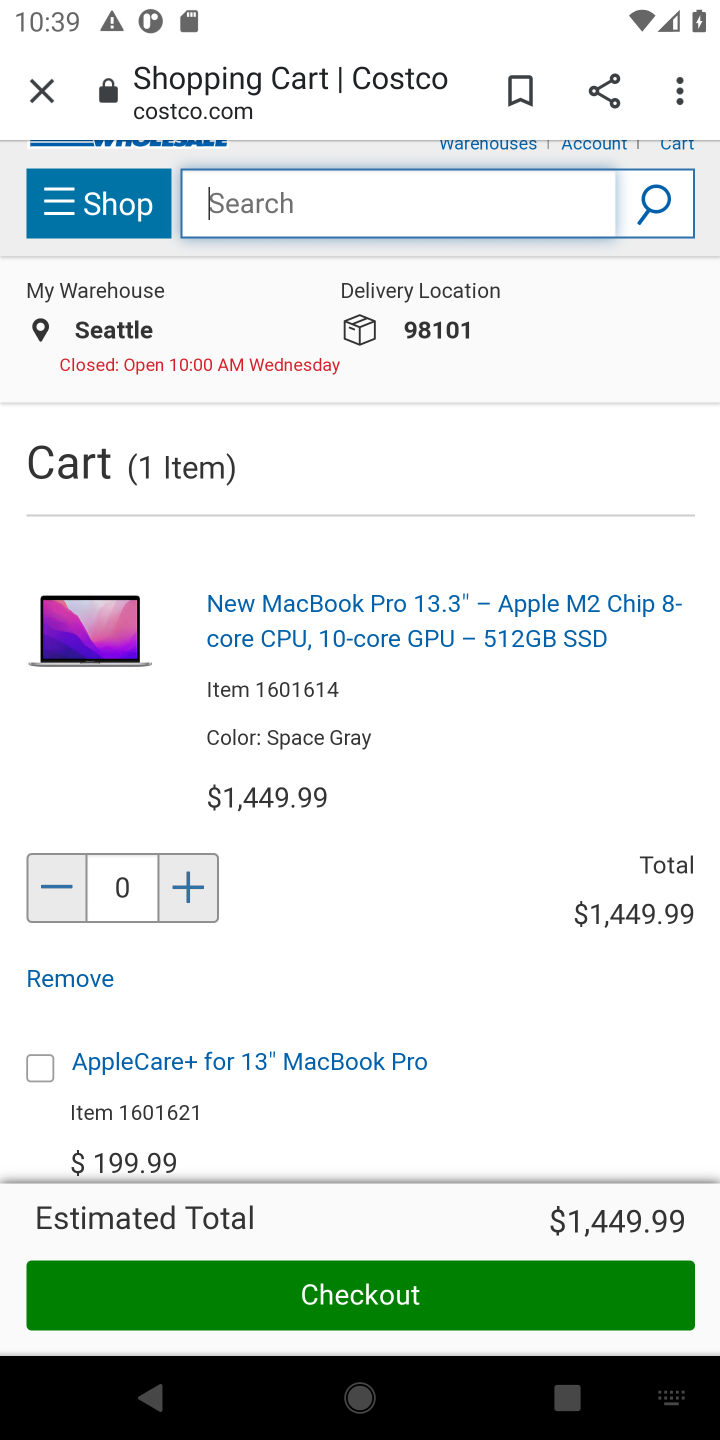
Step 29: click (444, 224)
Your task to perform on an android device: Clear all items from cart on costco.com. Search for "jbl flip 4" on costco.com, select the first entry, and add it to the cart. Image 30: 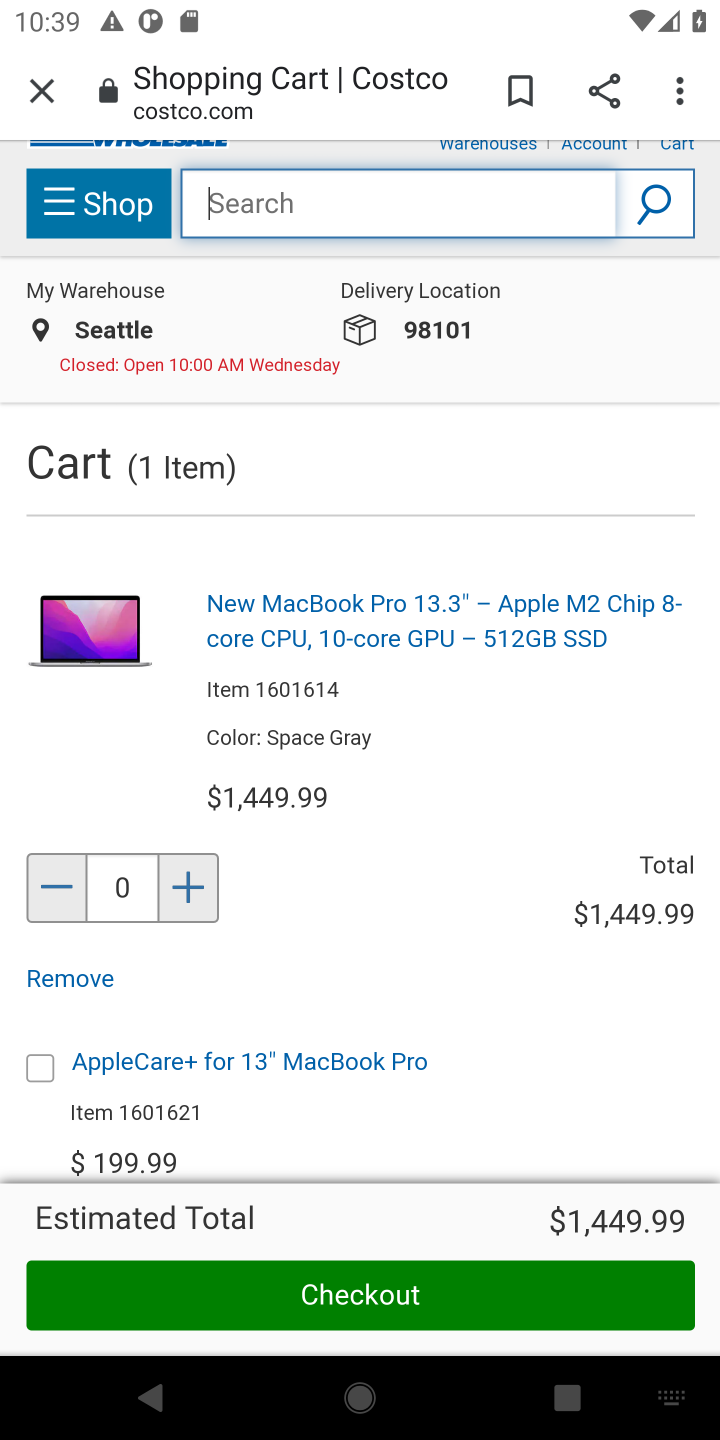
Step 30: task complete